Your task to perform on an android device: Search for seafood restaurants on Google Maps Image 0: 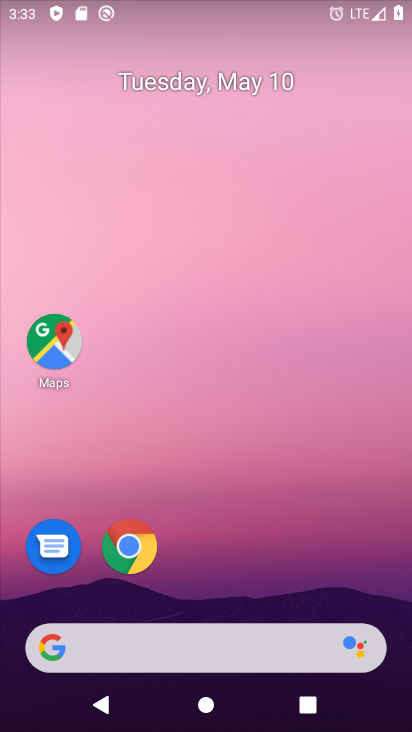
Step 0: click (309, 12)
Your task to perform on an android device: Search for seafood restaurants on Google Maps Image 1: 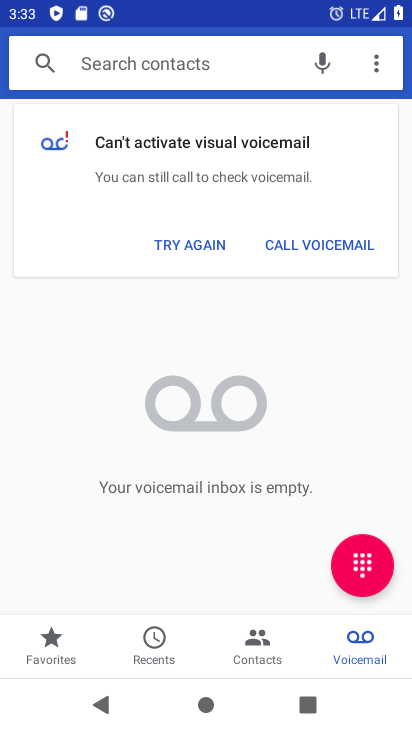
Step 1: press home button
Your task to perform on an android device: Search for seafood restaurants on Google Maps Image 2: 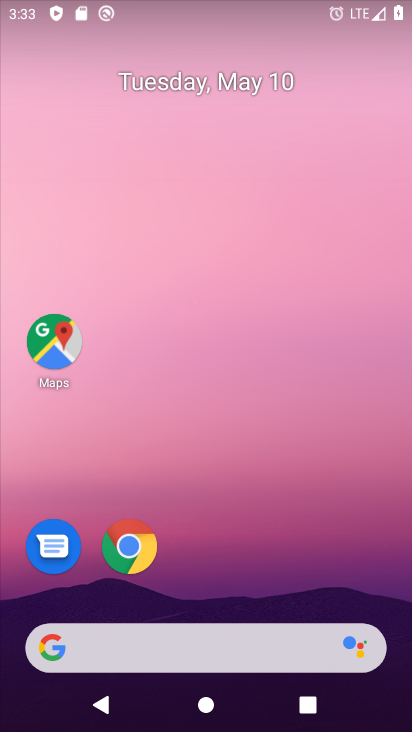
Step 2: drag from (210, 461) to (249, 100)
Your task to perform on an android device: Search for seafood restaurants on Google Maps Image 3: 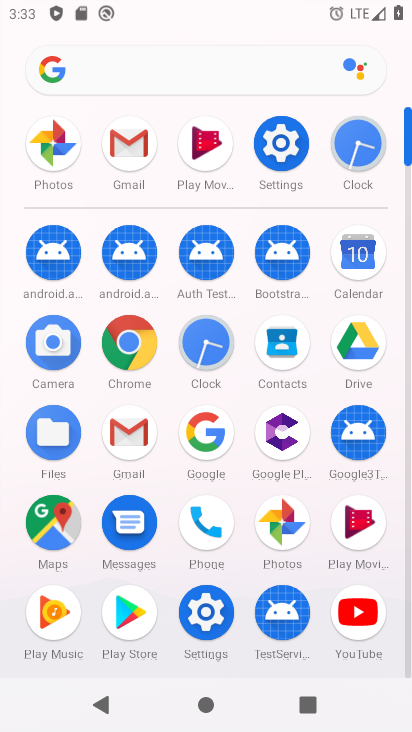
Step 3: click (48, 515)
Your task to perform on an android device: Search for seafood restaurants on Google Maps Image 4: 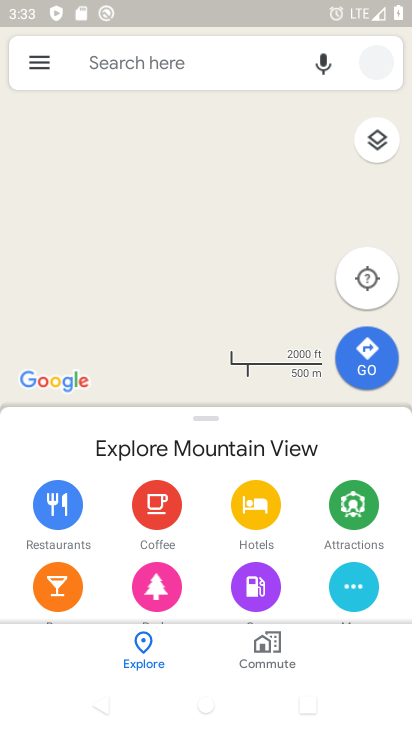
Step 4: click (148, 72)
Your task to perform on an android device: Search for seafood restaurants on Google Maps Image 5: 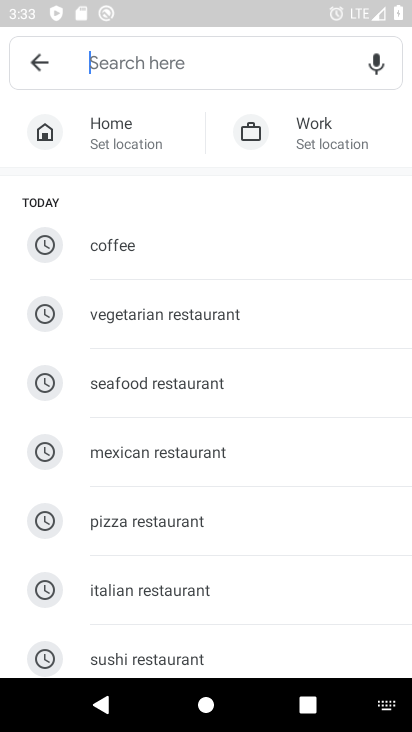
Step 5: type "seafood restaurants"
Your task to perform on an android device: Search for seafood restaurants on Google Maps Image 6: 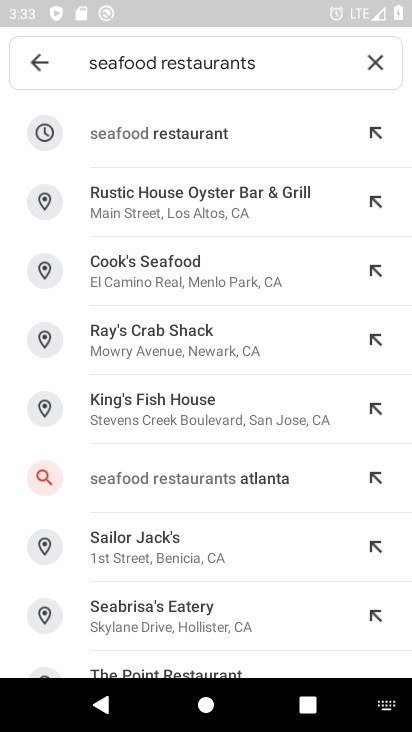
Step 6: click (238, 126)
Your task to perform on an android device: Search for seafood restaurants on Google Maps Image 7: 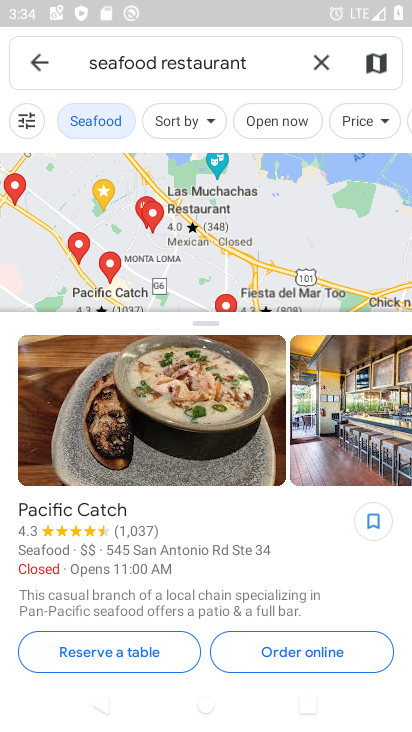
Step 7: task complete